Your task to perform on an android device: open wifi settings Image 0: 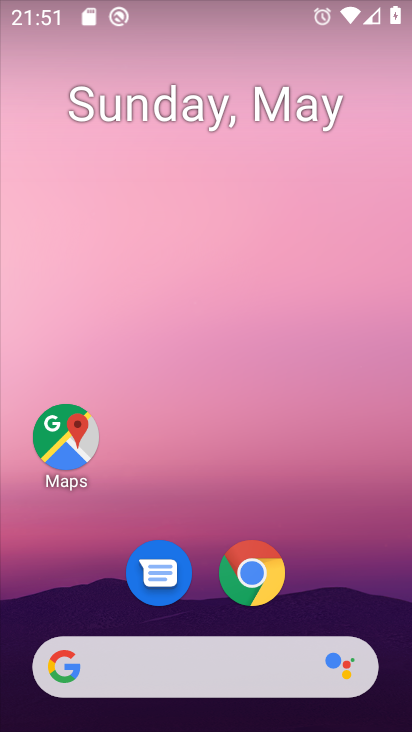
Step 0: drag from (237, 479) to (213, 11)
Your task to perform on an android device: open wifi settings Image 1: 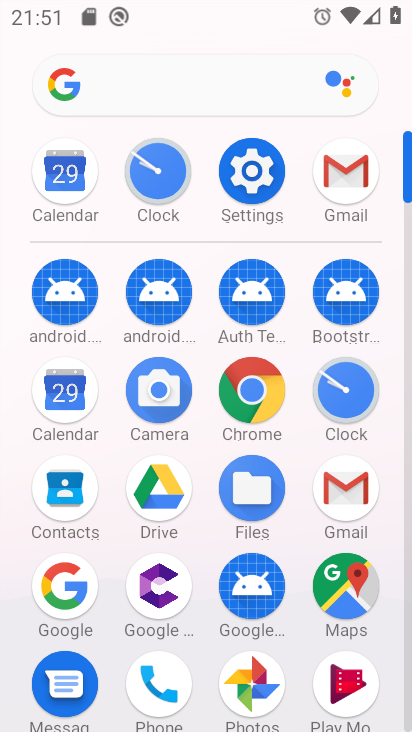
Step 1: click (256, 161)
Your task to perform on an android device: open wifi settings Image 2: 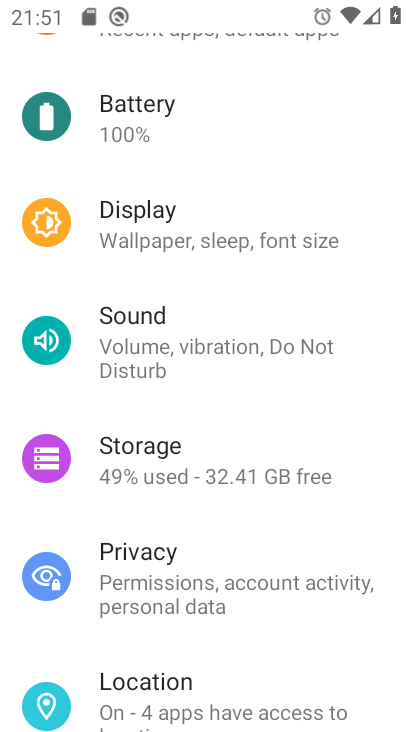
Step 2: drag from (253, 173) to (207, 608)
Your task to perform on an android device: open wifi settings Image 3: 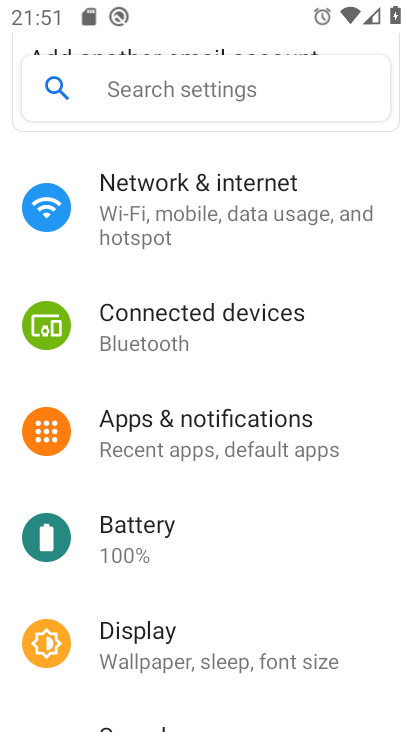
Step 3: drag from (258, 360) to (250, 567)
Your task to perform on an android device: open wifi settings Image 4: 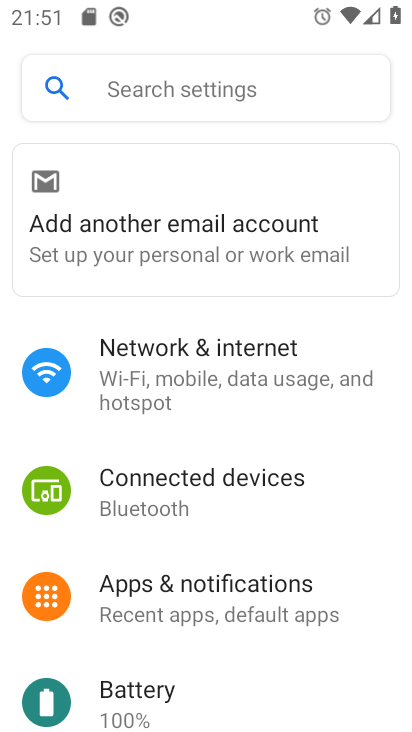
Step 4: click (257, 374)
Your task to perform on an android device: open wifi settings Image 5: 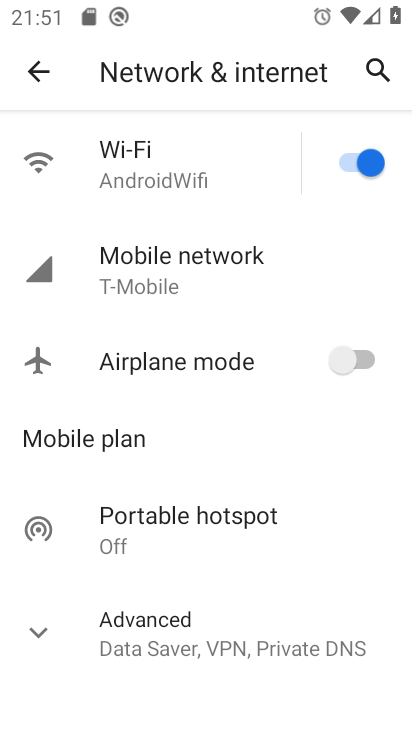
Step 5: task complete